Your task to perform on an android device: Open privacy settings Image 0: 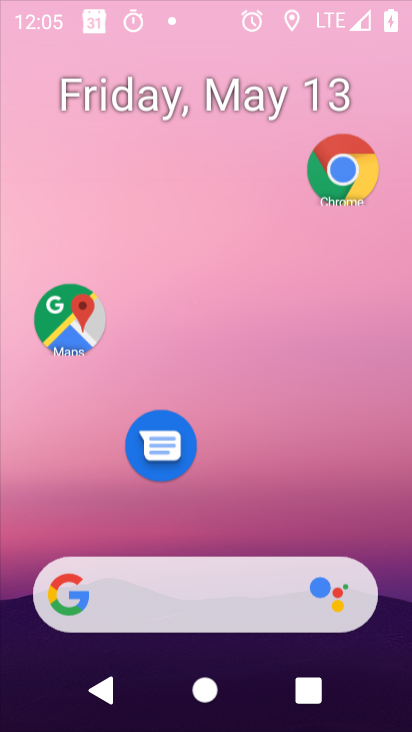
Step 0: drag from (259, 636) to (272, 44)
Your task to perform on an android device: Open privacy settings Image 1: 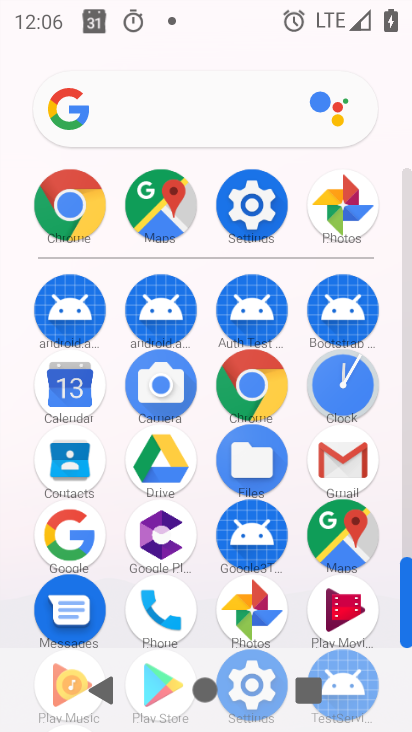
Step 1: click (258, 381)
Your task to perform on an android device: Open privacy settings Image 2: 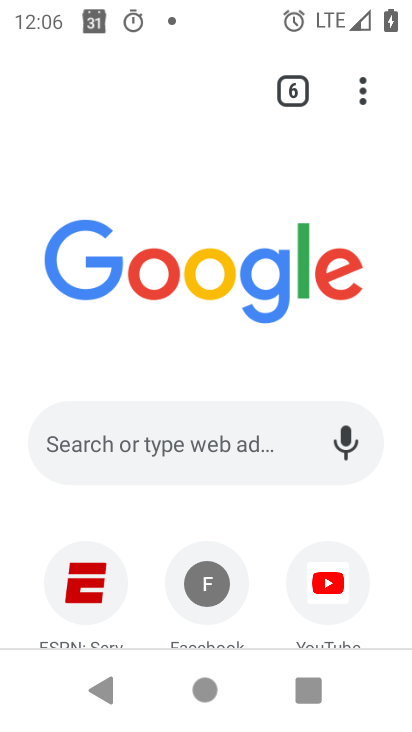
Step 2: drag from (359, 86) to (94, 492)
Your task to perform on an android device: Open privacy settings Image 3: 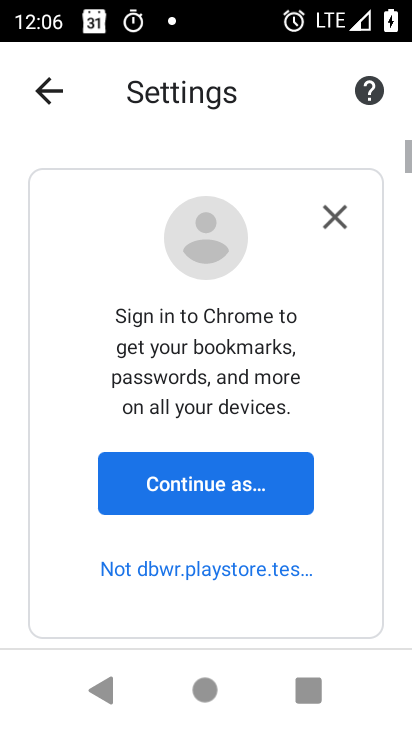
Step 3: drag from (270, 617) to (256, 88)
Your task to perform on an android device: Open privacy settings Image 4: 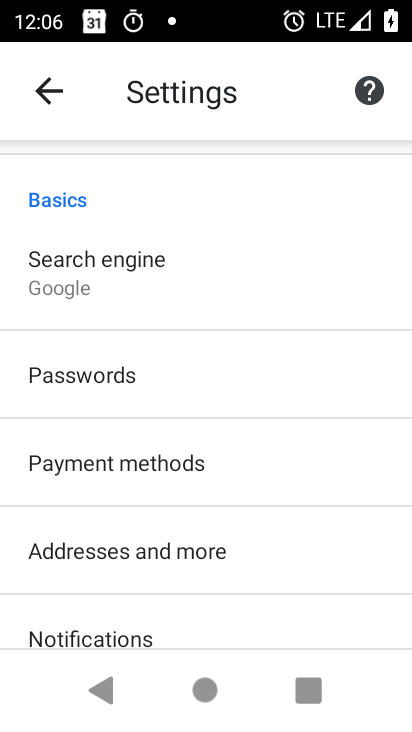
Step 4: drag from (165, 638) to (207, 156)
Your task to perform on an android device: Open privacy settings Image 5: 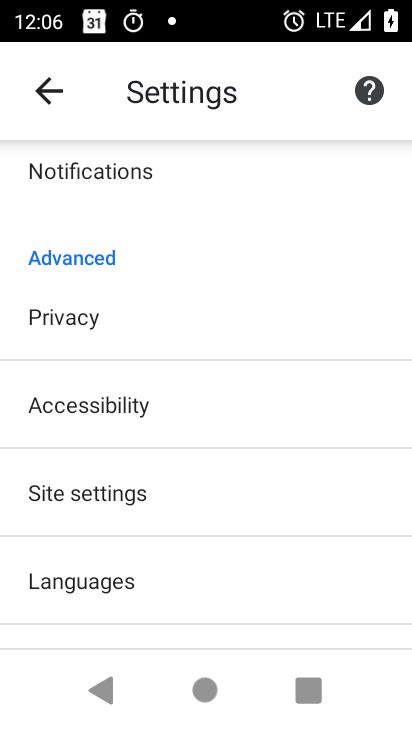
Step 5: click (130, 335)
Your task to perform on an android device: Open privacy settings Image 6: 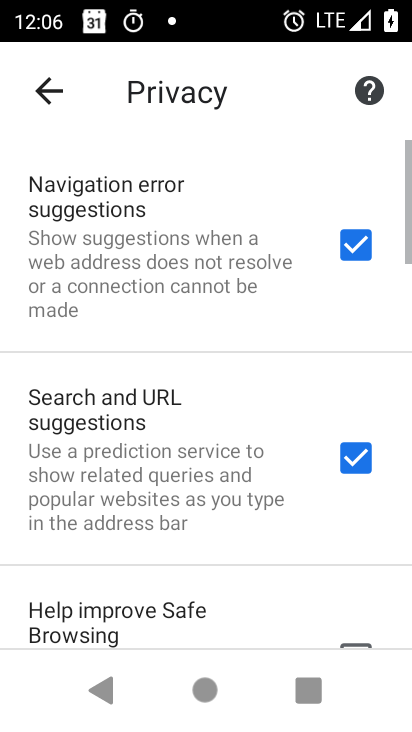
Step 6: task complete